Your task to perform on an android device: create a new album in the google photos Image 0: 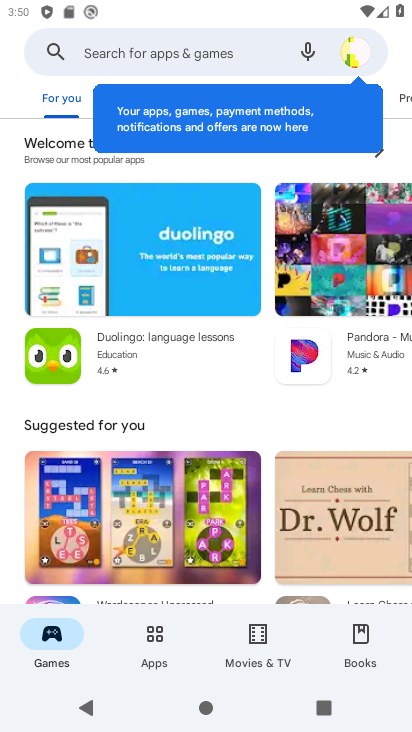
Step 0: press home button
Your task to perform on an android device: create a new album in the google photos Image 1: 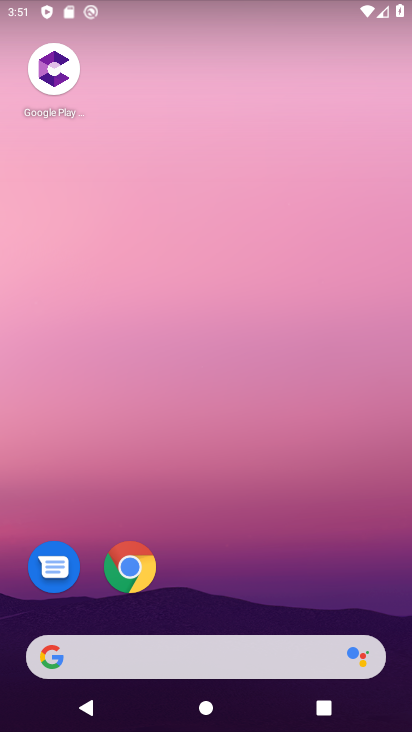
Step 1: drag from (198, 547) to (227, 203)
Your task to perform on an android device: create a new album in the google photos Image 2: 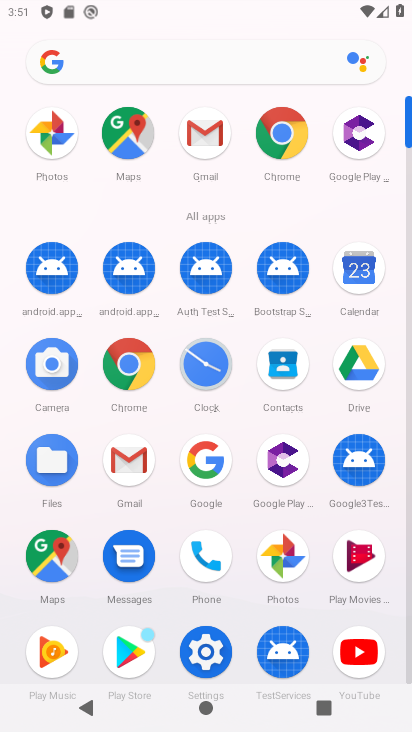
Step 2: click (277, 554)
Your task to perform on an android device: create a new album in the google photos Image 3: 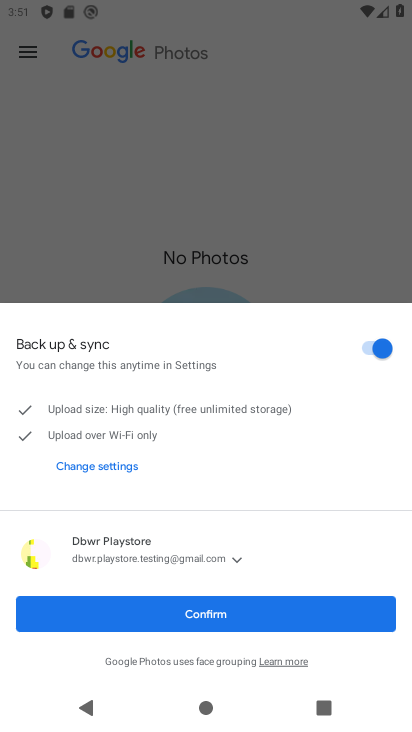
Step 3: click (249, 615)
Your task to perform on an android device: create a new album in the google photos Image 4: 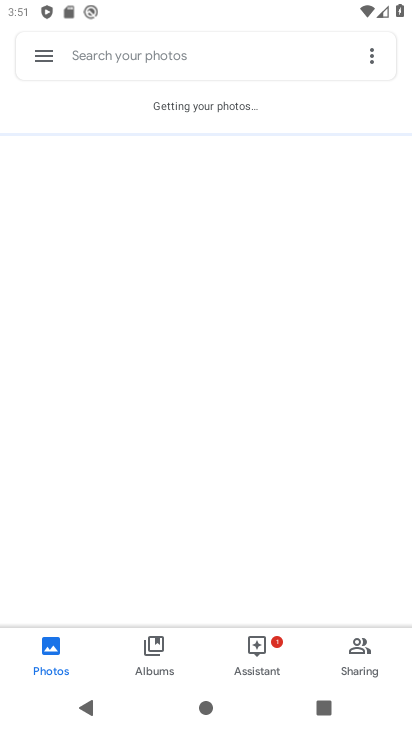
Step 4: click (158, 649)
Your task to perform on an android device: create a new album in the google photos Image 5: 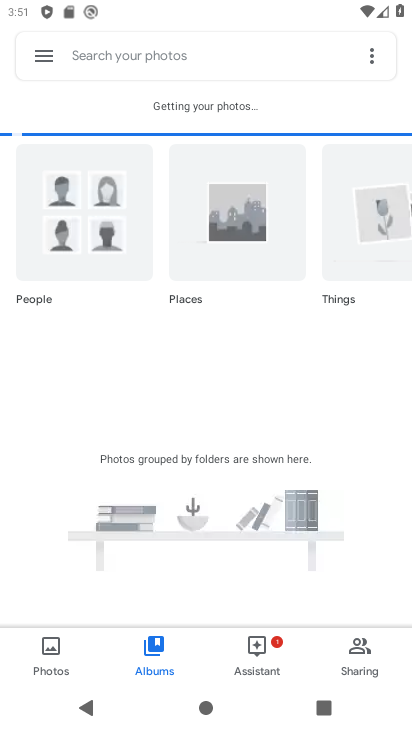
Step 5: click (370, 56)
Your task to perform on an android device: create a new album in the google photos Image 6: 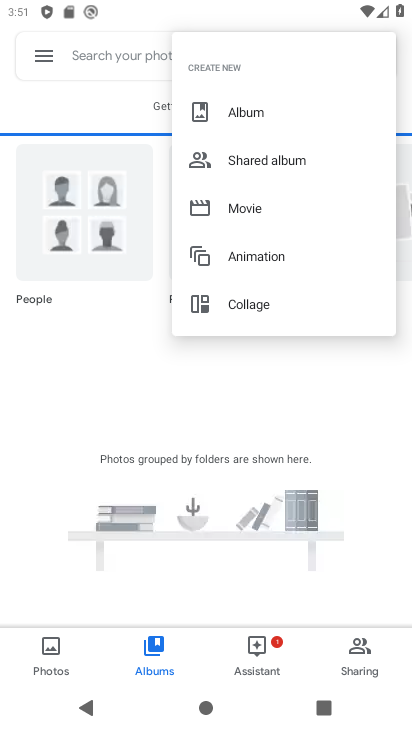
Step 6: click (247, 108)
Your task to perform on an android device: create a new album in the google photos Image 7: 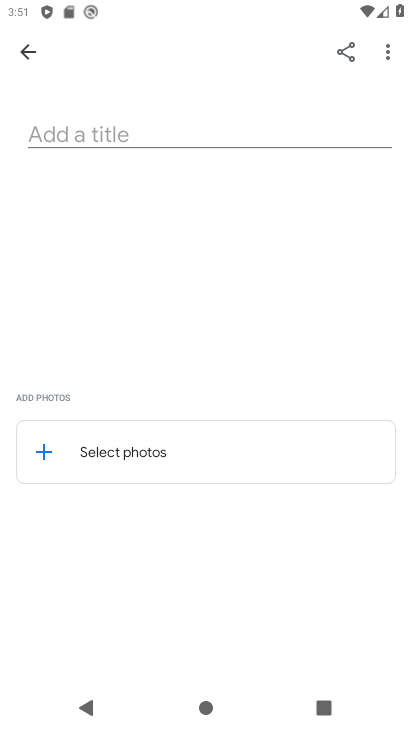
Step 7: click (69, 122)
Your task to perform on an android device: create a new album in the google photos Image 8: 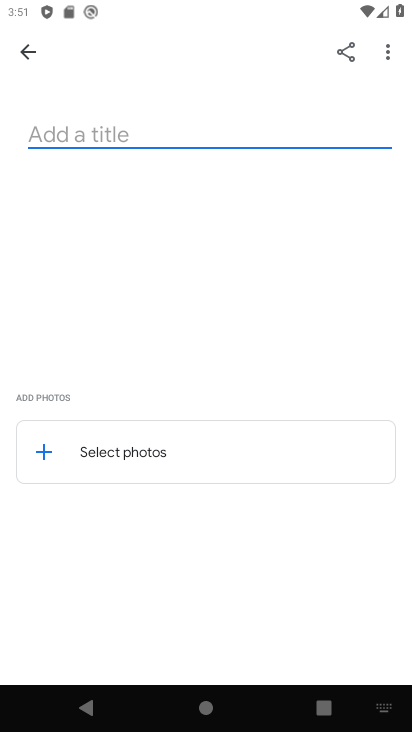
Step 8: click (31, 460)
Your task to perform on an android device: create a new album in the google photos Image 9: 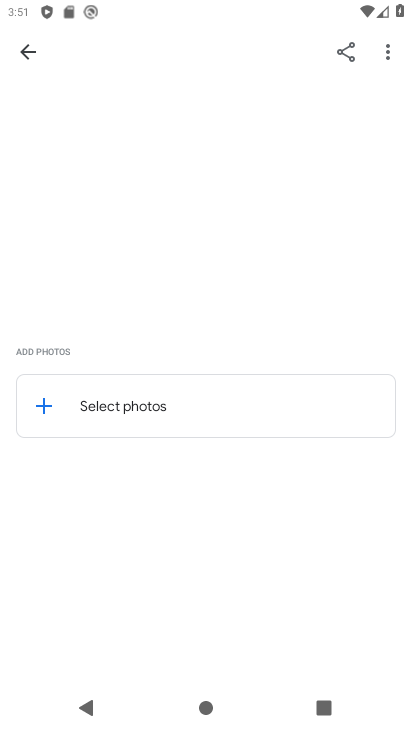
Step 9: click (54, 400)
Your task to perform on an android device: create a new album in the google photos Image 10: 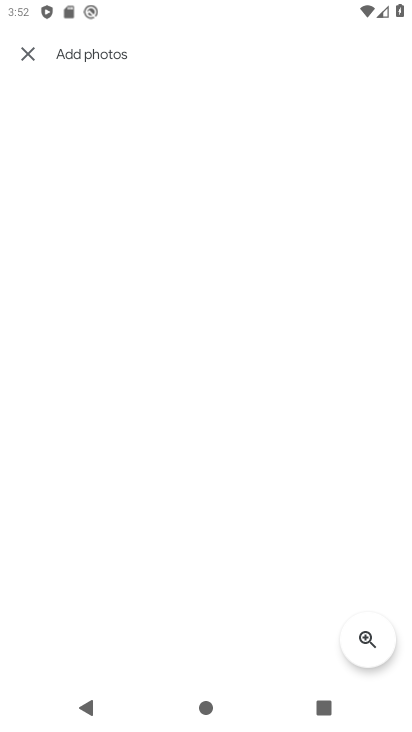
Step 10: click (37, 47)
Your task to perform on an android device: create a new album in the google photos Image 11: 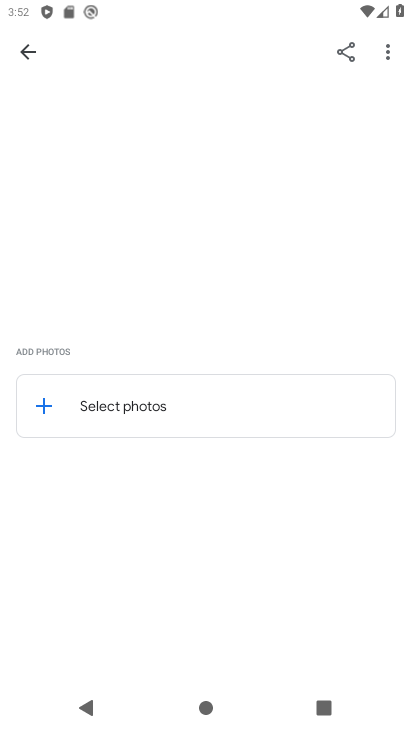
Step 11: click (137, 413)
Your task to perform on an android device: create a new album in the google photos Image 12: 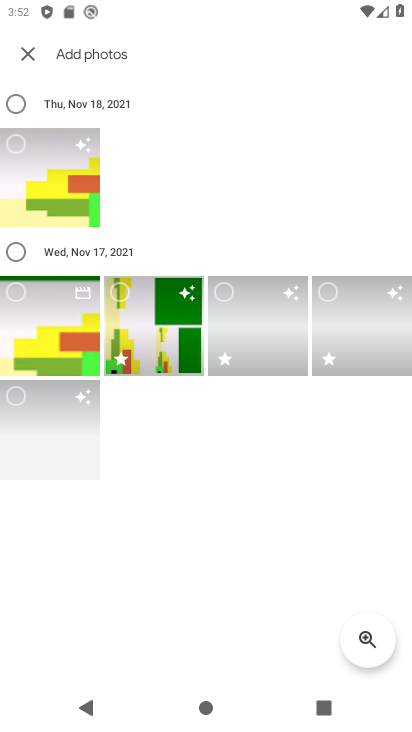
Step 12: click (20, 139)
Your task to perform on an android device: create a new album in the google photos Image 13: 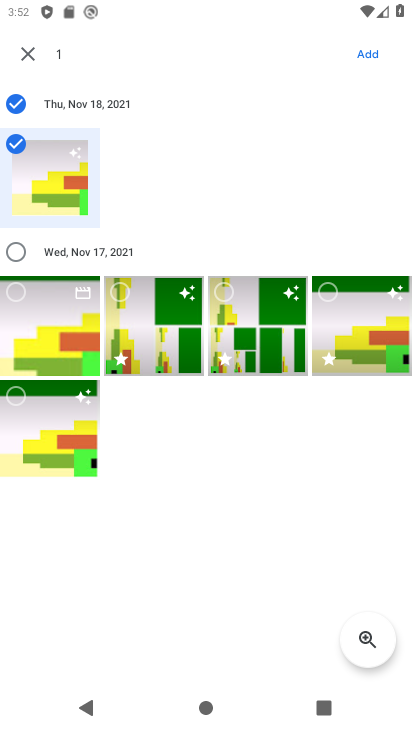
Step 13: click (365, 54)
Your task to perform on an android device: create a new album in the google photos Image 14: 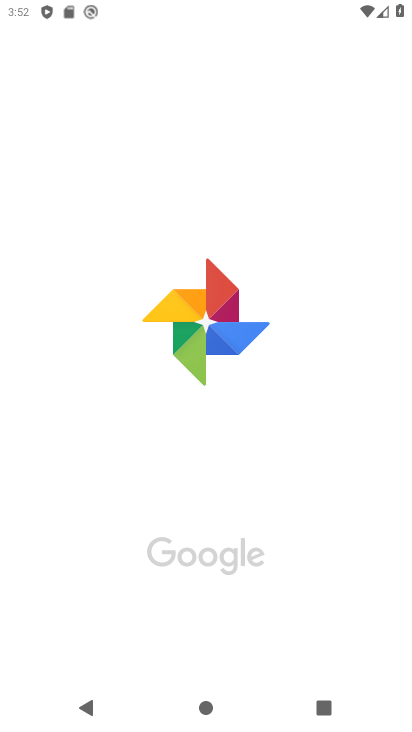
Step 14: task complete